Your task to perform on an android device: Go to notification settings Image 0: 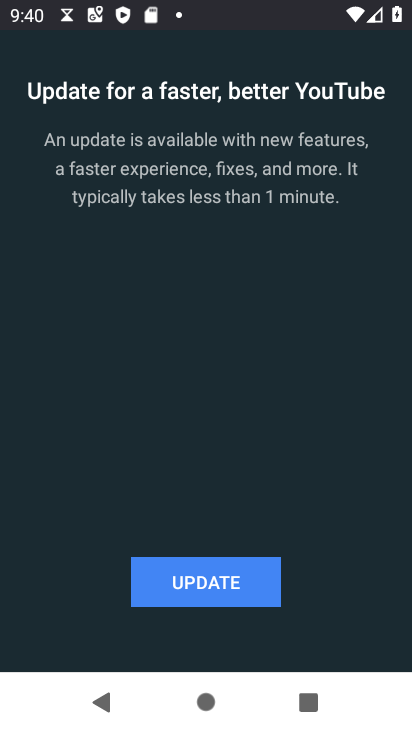
Step 0: press home button
Your task to perform on an android device: Go to notification settings Image 1: 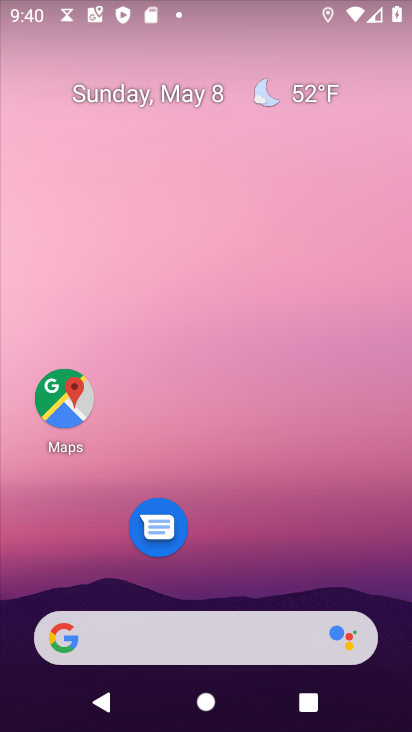
Step 1: drag from (253, 552) to (245, 33)
Your task to perform on an android device: Go to notification settings Image 2: 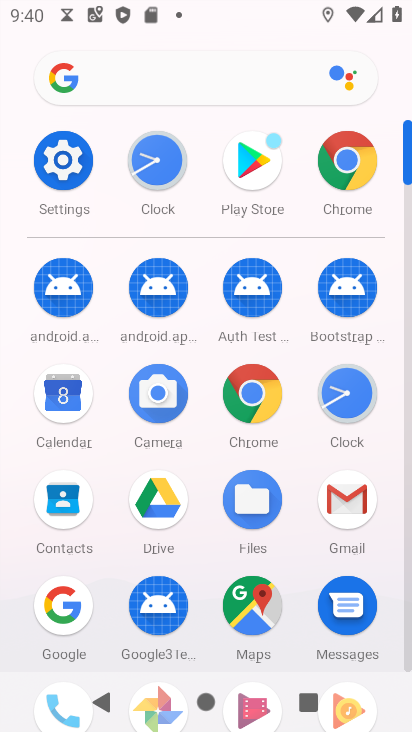
Step 2: click (62, 161)
Your task to perform on an android device: Go to notification settings Image 3: 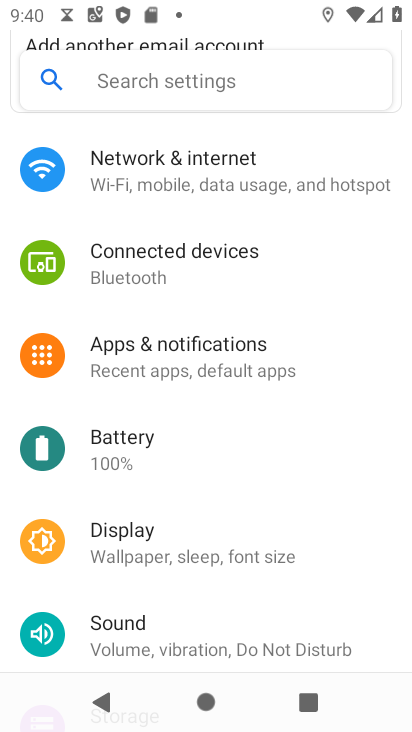
Step 3: click (199, 357)
Your task to perform on an android device: Go to notification settings Image 4: 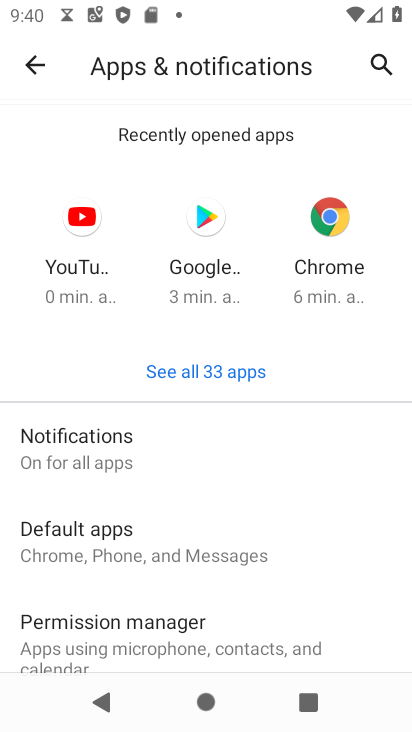
Step 4: click (124, 436)
Your task to perform on an android device: Go to notification settings Image 5: 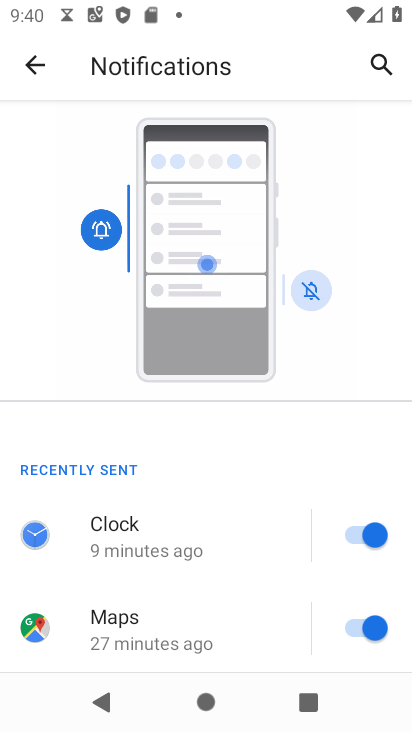
Step 5: task complete